Your task to perform on an android device: Search for "logitech g pro" on bestbuy.com, select the first entry, add it to the cart, then select checkout. Image 0: 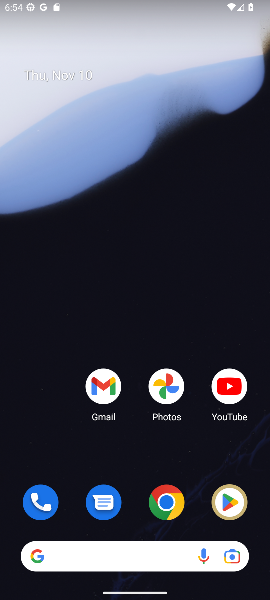
Step 0: drag from (135, 508) to (125, 223)
Your task to perform on an android device: Search for "logitech g pro" on bestbuy.com, select the first entry, add it to the cart, then select checkout. Image 1: 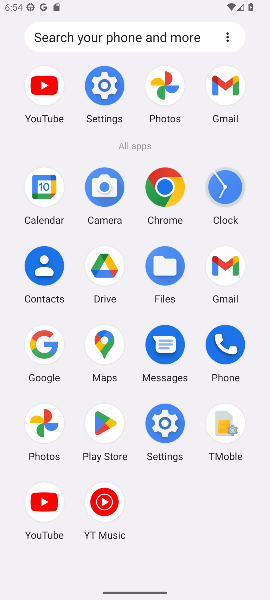
Step 1: press home button
Your task to perform on an android device: Search for "logitech g pro" on bestbuy.com, select the first entry, add it to the cart, then select checkout. Image 2: 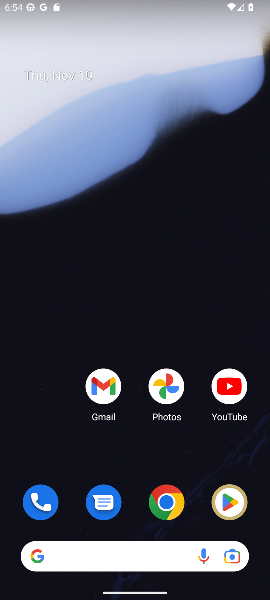
Step 2: drag from (136, 522) to (132, 224)
Your task to perform on an android device: Search for "logitech g pro" on bestbuy.com, select the first entry, add it to the cart, then select checkout. Image 3: 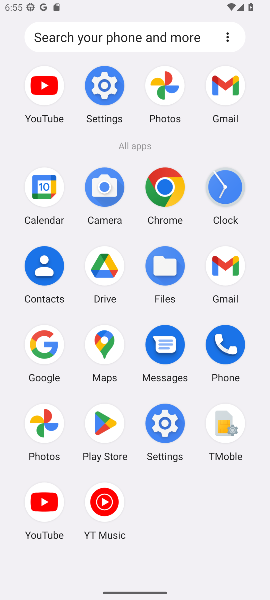
Step 3: click (36, 349)
Your task to perform on an android device: Search for "logitech g pro" on bestbuy.com, select the first entry, add it to the cart, then select checkout. Image 4: 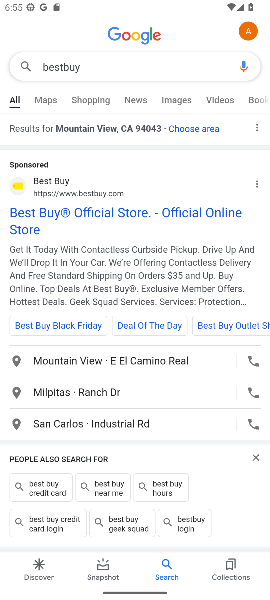
Step 4: click (38, 219)
Your task to perform on an android device: Search for "logitech g pro" on bestbuy.com, select the first entry, add it to the cart, then select checkout. Image 5: 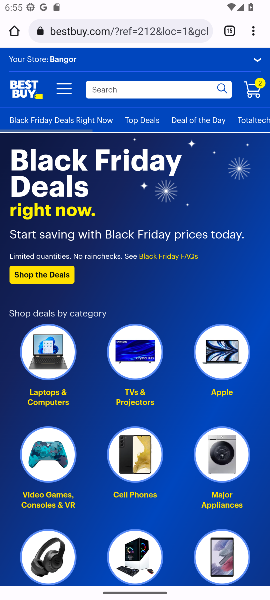
Step 5: click (130, 85)
Your task to perform on an android device: Search for "logitech g pro" on bestbuy.com, select the first entry, add it to the cart, then select checkout. Image 6: 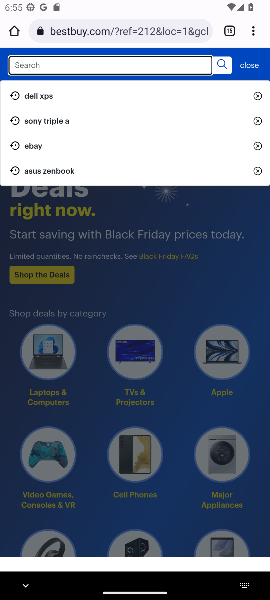
Step 6: type ""logitech g pro"
Your task to perform on an android device: Search for "logitech g pro" on bestbuy.com, select the first entry, add it to the cart, then select checkout. Image 7: 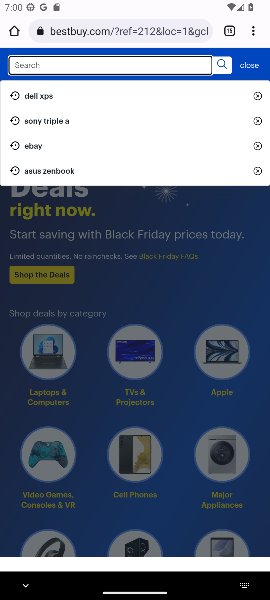
Step 7: click (180, 68)
Your task to perform on an android device: Search for "logitech g pro" on bestbuy.com, select the first entry, add it to the cart, then select checkout. Image 8: 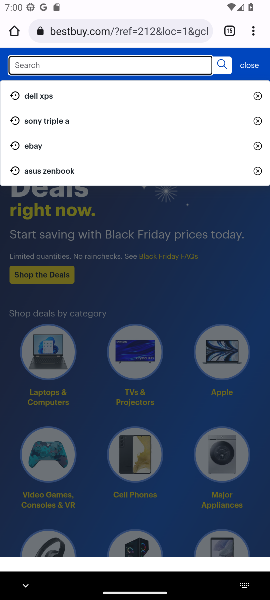
Step 8: type "logitech g pro"
Your task to perform on an android device: Search for "logitech g pro" on bestbuy.com, select the first entry, add it to the cart, then select checkout. Image 9: 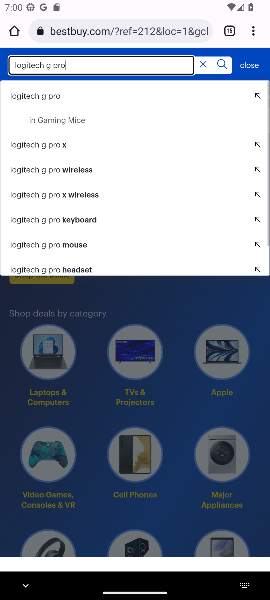
Step 9: click (52, 96)
Your task to perform on an android device: Search for "logitech g pro" on bestbuy.com, select the first entry, add it to the cart, then select checkout. Image 10: 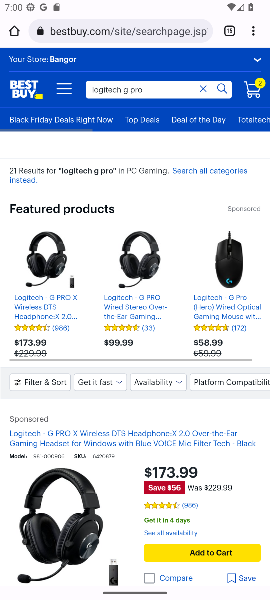
Step 10: click (199, 561)
Your task to perform on an android device: Search for "logitech g pro" on bestbuy.com, select the first entry, add it to the cart, then select checkout. Image 11: 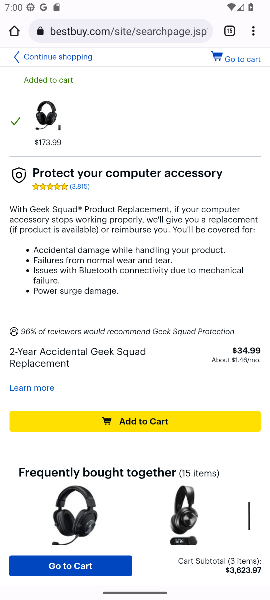
Step 11: click (147, 424)
Your task to perform on an android device: Search for "logitech g pro" on bestbuy.com, select the first entry, add it to the cart, then select checkout. Image 12: 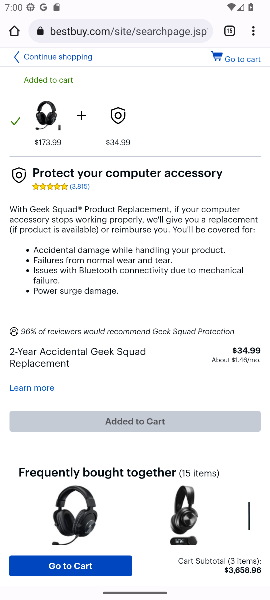
Step 12: task complete